Your task to perform on an android device: Open the web browser Image 0: 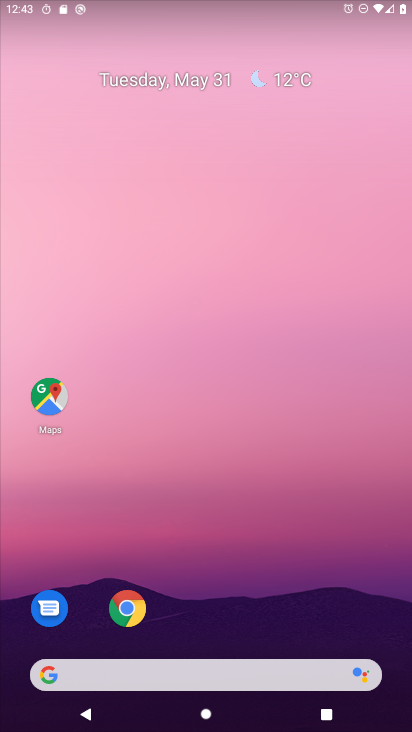
Step 0: click (128, 615)
Your task to perform on an android device: Open the web browser Image 1: 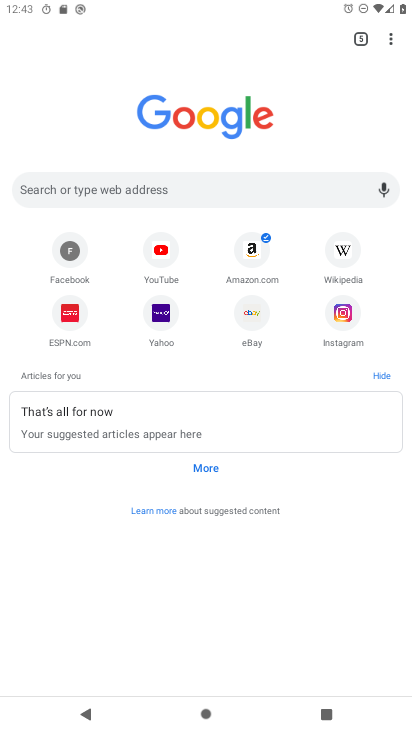
Step 1: task complete